Your task to perform on an android device: Go to Android settings Image 0: 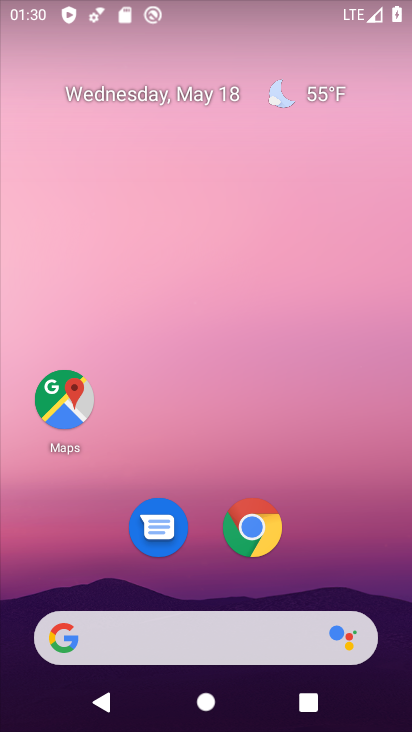
Step 0: drag from (324, 583) to (253, 119)
Your task to perform on an android device: Go to Android settings Image 1: 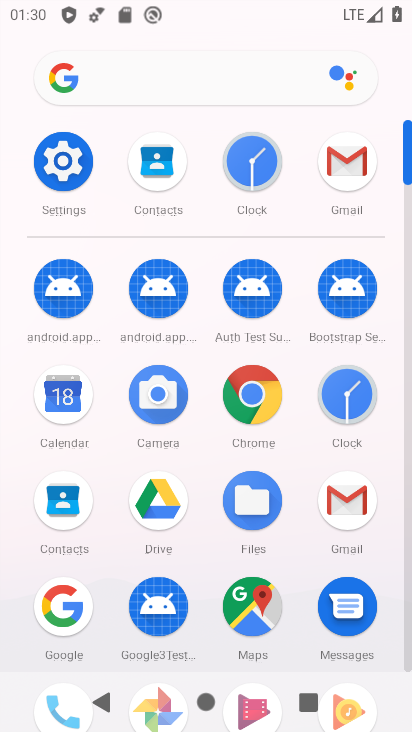
Step 1: click (70, 161)
Your task to perform on an android device: Go to Android settings Image 2: 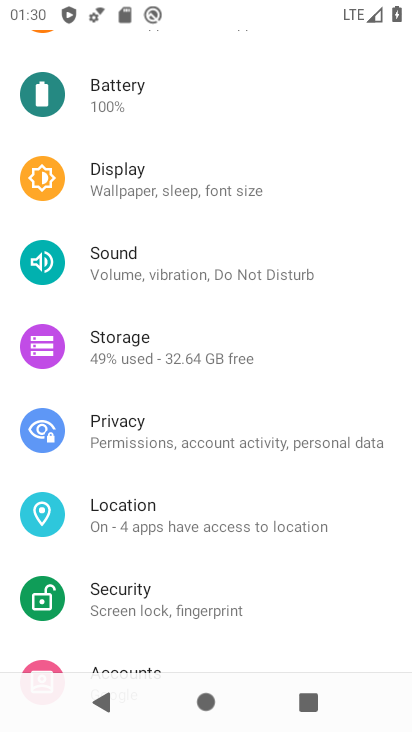
Step 2: drag from (214, 492) to (222, 70)
Your task to perform on an android device: Go to Android settings Image 3: 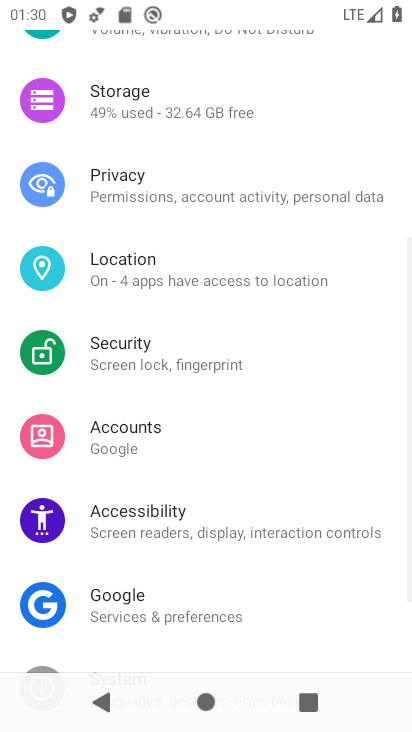
Step 3: drag from (202, 592) to (218, 94)
Your task to perform on an android device: Go to Android settings Image 4: 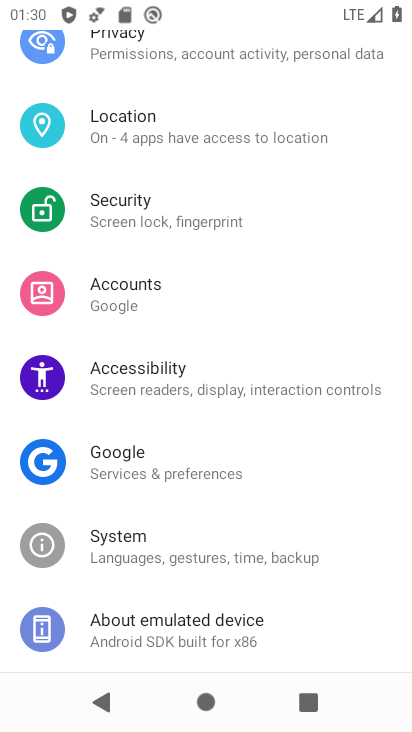
Step 4: click (187, 618)
Your task to perform on an android device: Go to Android settings Image 5: 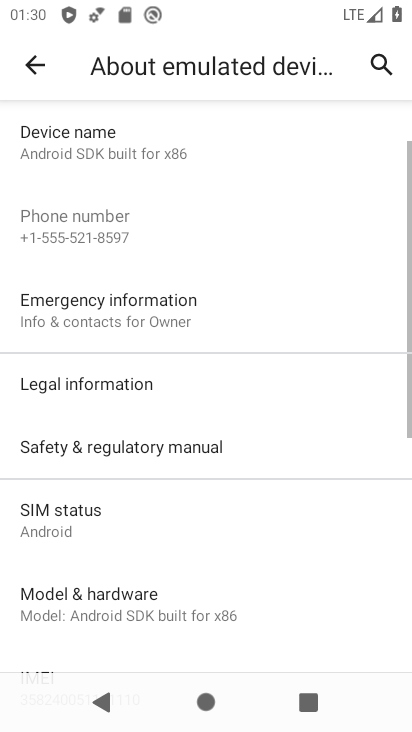
Step 5: drag from (201, 387) to (203, 187)
Your task to perform on an android device: Go to Android settings Image 6: 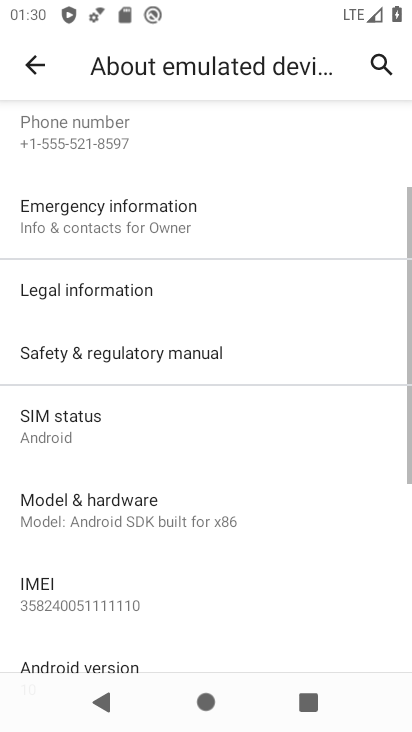
Step 6: drag from (127, 564) to (144, 282)
Your task to perform on an android device: Go to Android settings Image 7: 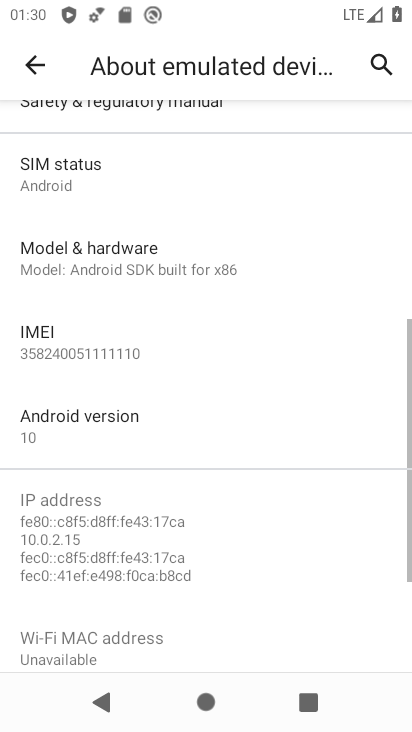
Step 7: click (116, 441)
Your task to perform on an android device: Go to Android settings Image 8: 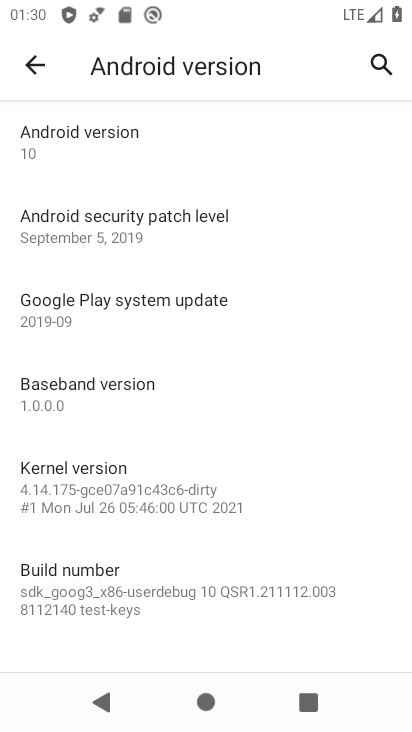
Step 8: task complete